Your task to perform on an android device: Open Yahoo.com Image 0: 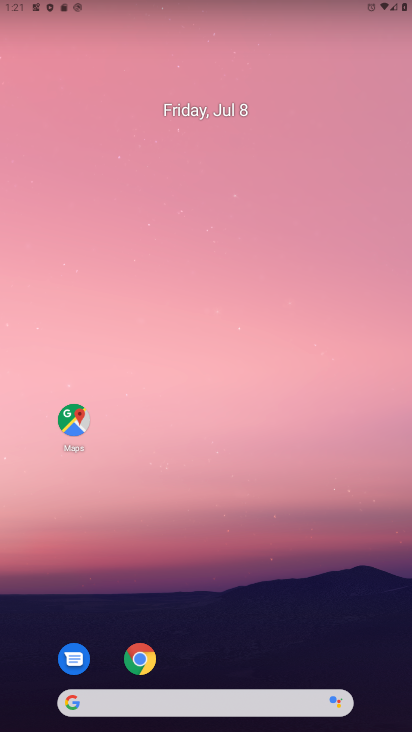
Step 0: click (142, 660)
Your task to perform on an android device: Open Yahoo.com Image 1: 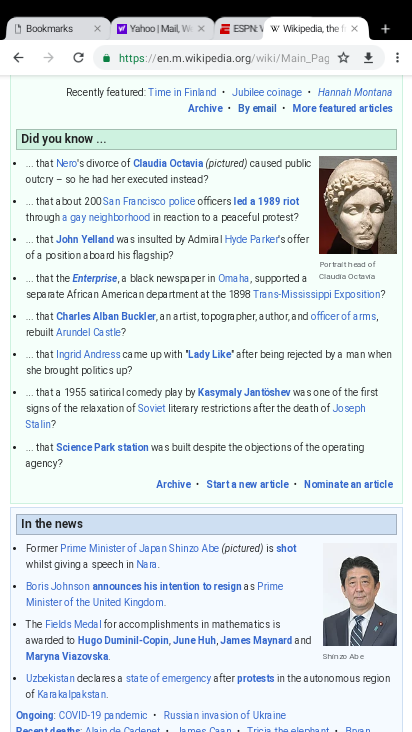
Step 1: click (154, 23)
Your task to perform on an android device: Open Yahoo.com Image 2: 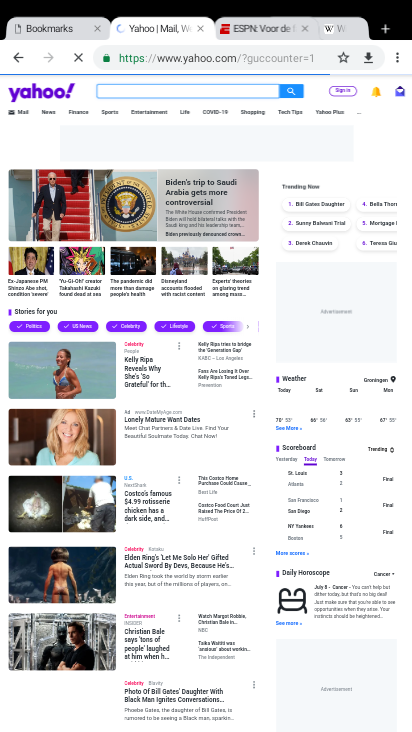
Step 2: task complete